Your task to perform on an android device: turn pop-ups off in chrome Image 0: 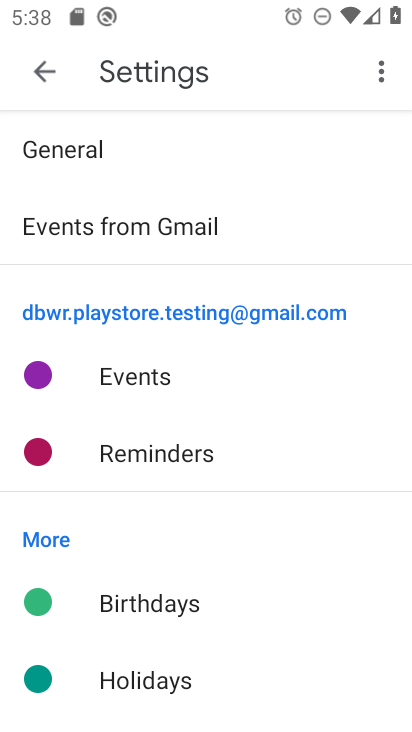
Step 0: press home button
Your task to perform on an android device: turn pop-ups off in chrome Image 1: 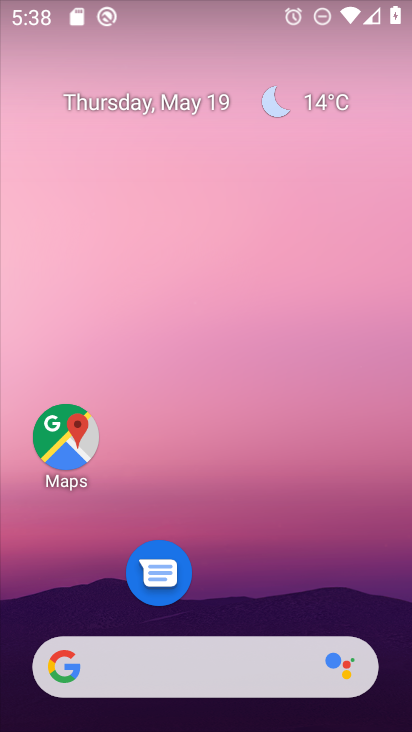
Step 1: drag from (277, 593) to (351, 5)
Your task to perform on an android device: turn pop-ups off in chrome Image 2: 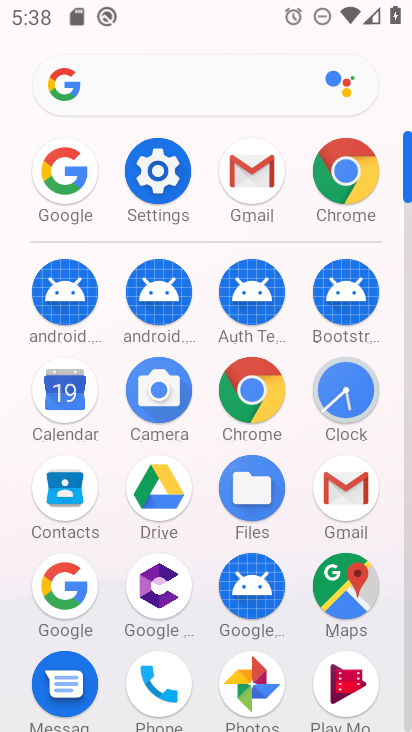
Step 2: click (346, 173)
Your task to perform on an android device: turn pop-ups off in chrome Image 3: 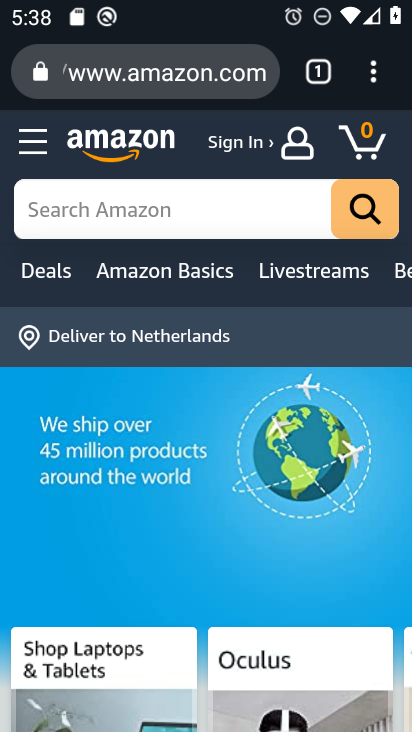
Step 3: click (372, 75)
Your task to perform on an android device: turn pop-ups off in chrome Image 4: 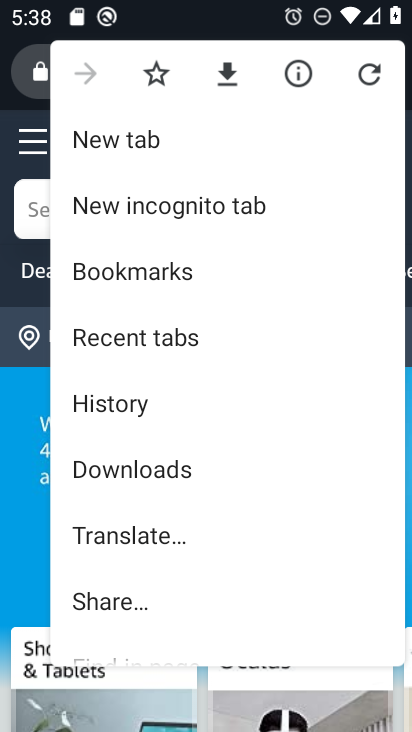
Step 4: drag from (169, 572) to (205, 171)
Your task to perform on an android device: turn pop-ups off in chrome Image 5: 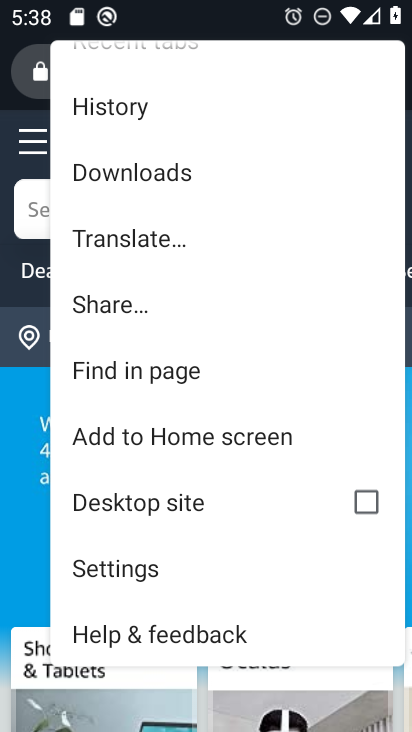
Step 5: click (144, 576)
Your task to perform on an android device: turn pop-ups off in chrome Image 6: 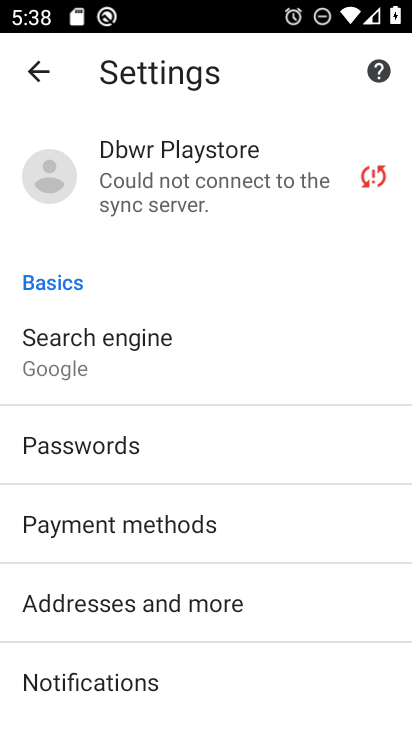
Step 6: drag from (169, 639) to (267, 213)
Your task to perform on an android device: turn pop-ups off in chrome Image 7: 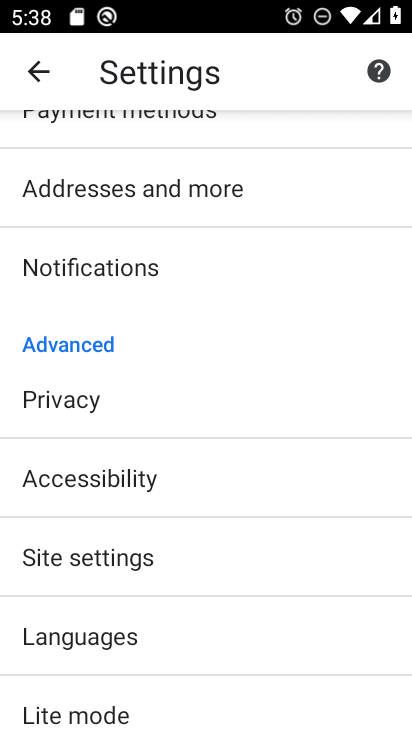
Step 7: click (116, 561)
Your task to perform on an android device: turn pop-ups off in chrome Image 8: 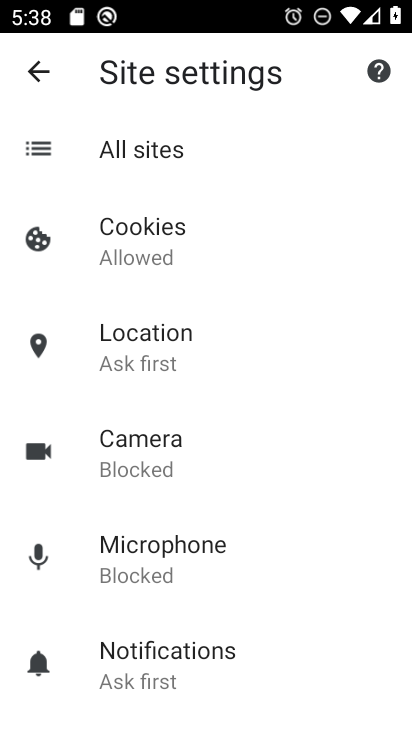
Step 8: drag from (214, 658) to (269, 407)
Your task to perform on an android device: turn pop-ups off in chrome Image 9: 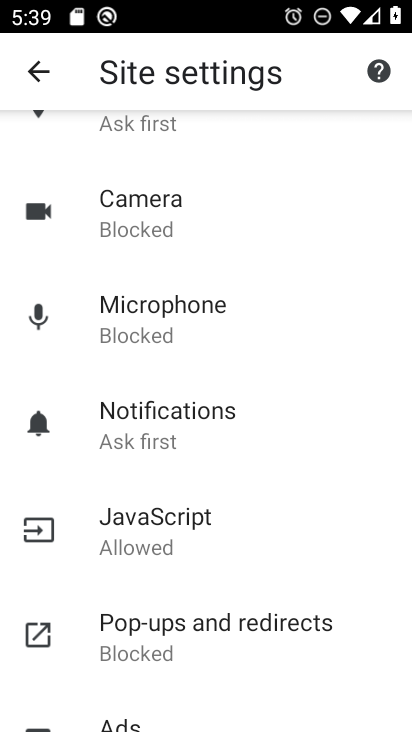
Step 9: click (179, 635)
Your task to perform on an android device: turn pop-ups off in chrome Image 10: 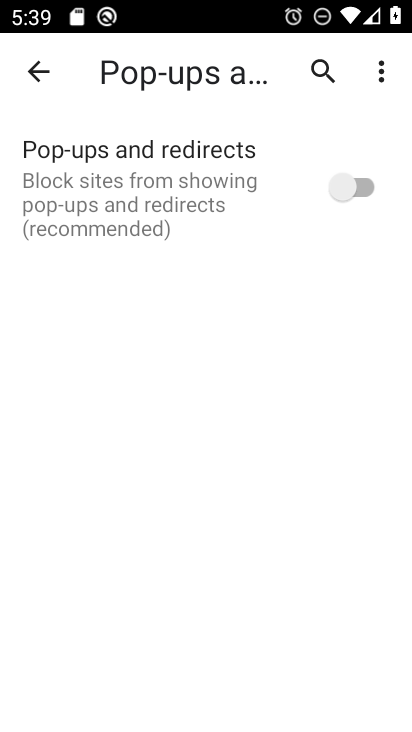
Step 10: task complete